Your task to perform on an android device: Open the map Image 0: 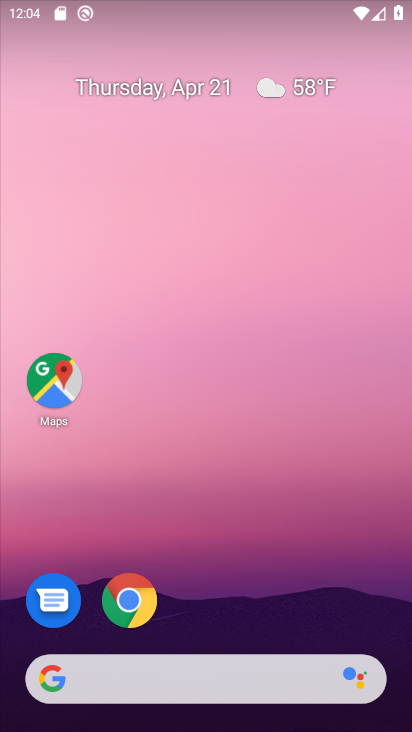
Step 0: click (52, 384)
Your task to perform on an android device: Open the map Image 1: 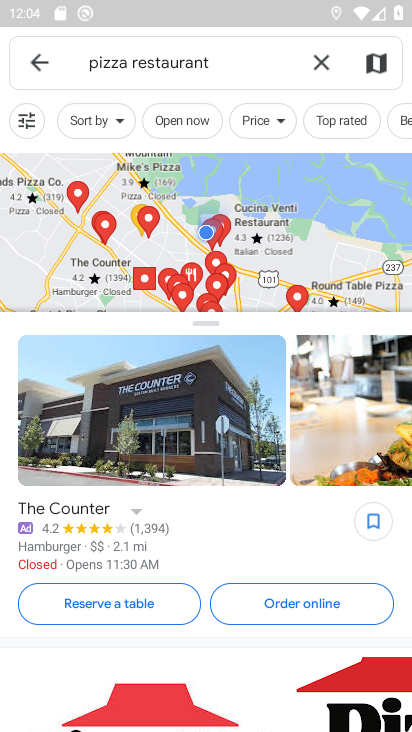
Step 1: click (316, 57)
Your task to perform on an android device: Open the map Image 2: 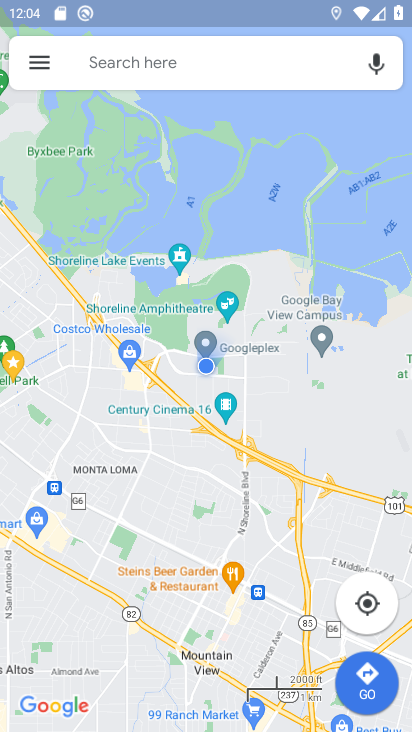
Step 2: click (316, 57)
Your task to perform on an android device: Open the map Image 3: 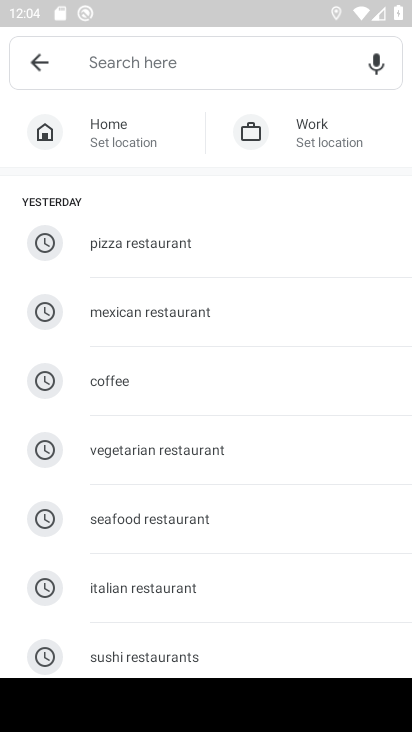
Step 3: task complete